Your task to perform on an android device: change your default location settings in chrome Image 0: 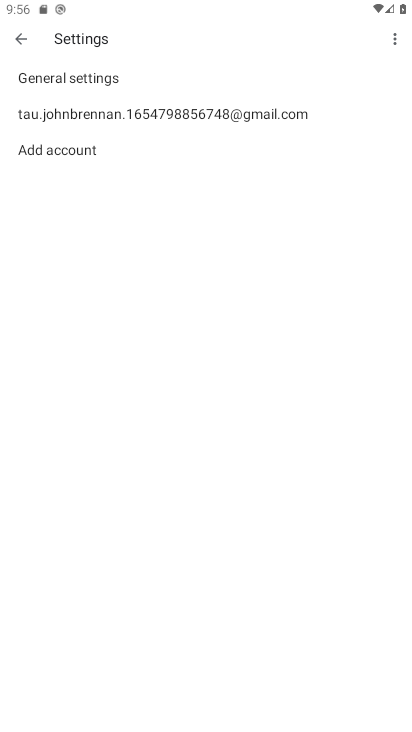
Step 0: press home button
Your task to perform on an android device: change your default location settings in chrome Image 1: 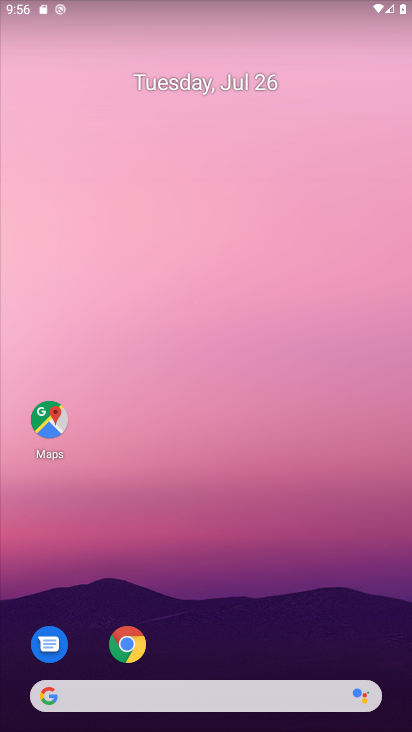
Step 1: drag from (269, 605) to (256, 164)
Your task to perform on an android device: change your default location settings in chrome Image 2: 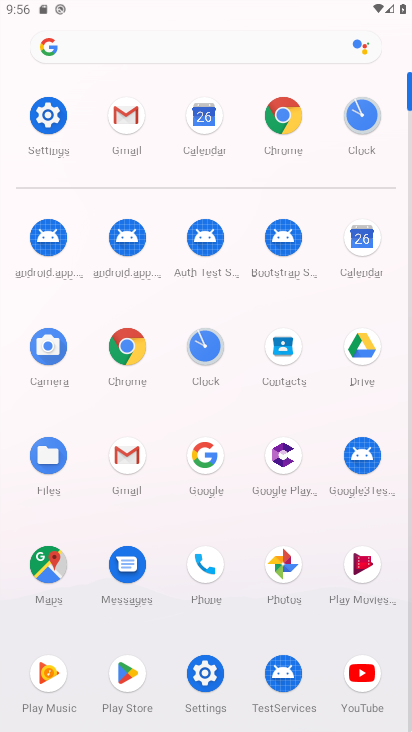
Step 2: click (125, 363)
Your task to perform on an android device: change your default location settings in chrome Image 3: 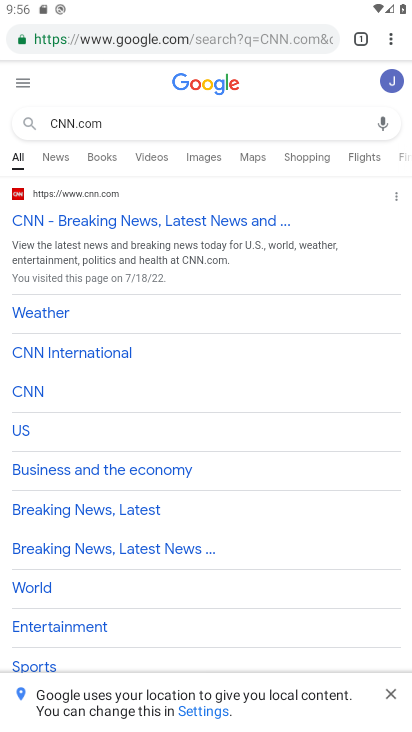
Step 3: click (393, 38)
Your task to perform on an android device: change your default location settings in chrome Image 4: 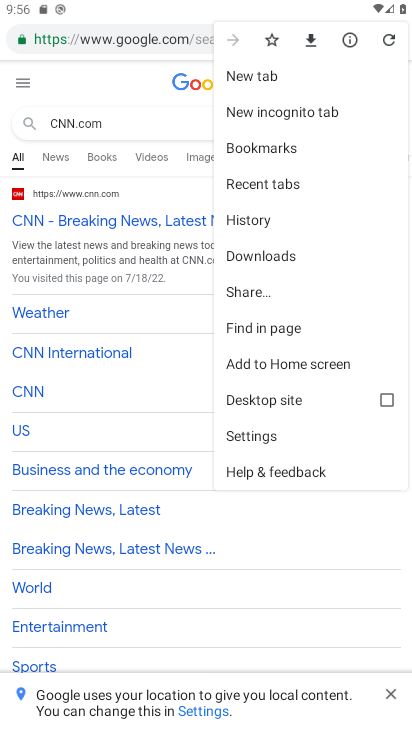
Step 4: click (264, 436)
Your task to perform on an android device: change your default location settings in chrome Image 5: 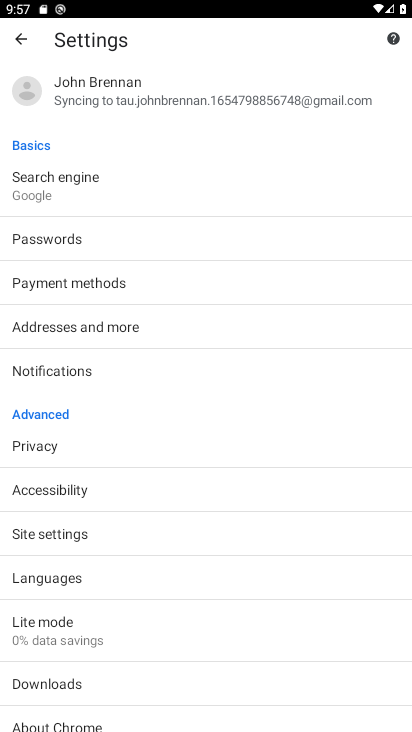
Step 5: click (78, 530)
Your task to perform on an android device: change your default location settings in chrome Image 6: 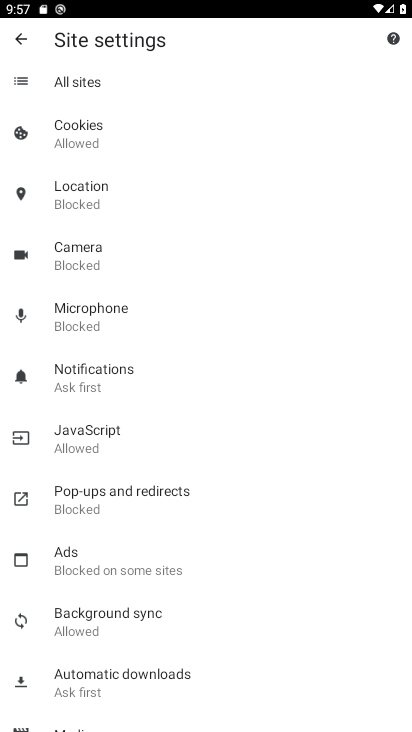
Step 6: click (91, 200)
Your task to perform on an android device: change your default location settings in chrome Image 7: 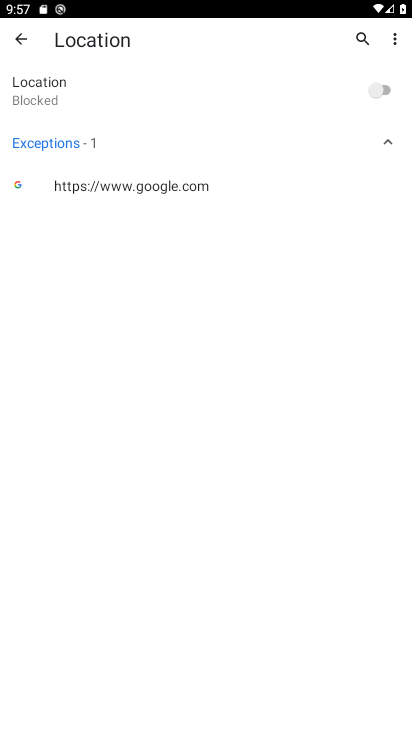
Step 7: click (361, 94)
Your task to perform on an android device: change your default location settings in chrome Image 8: 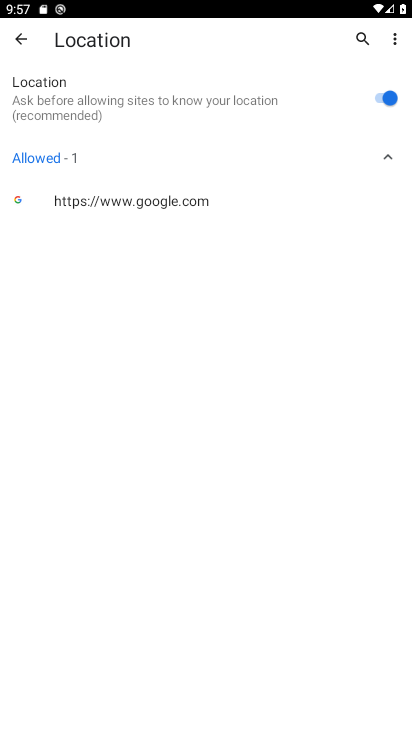
Step 8: task complete